Your task to perform on an android device: Check the news Image 0: 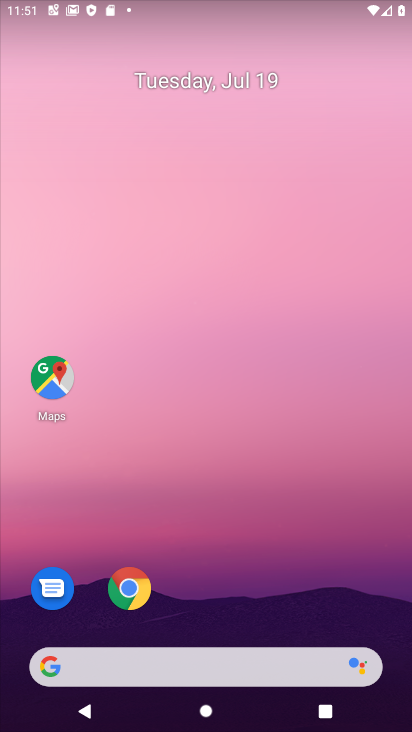
Step 0: drag from (1, 249) to (405, 296)
Your task to perform on an android device: Check the news Image 1: 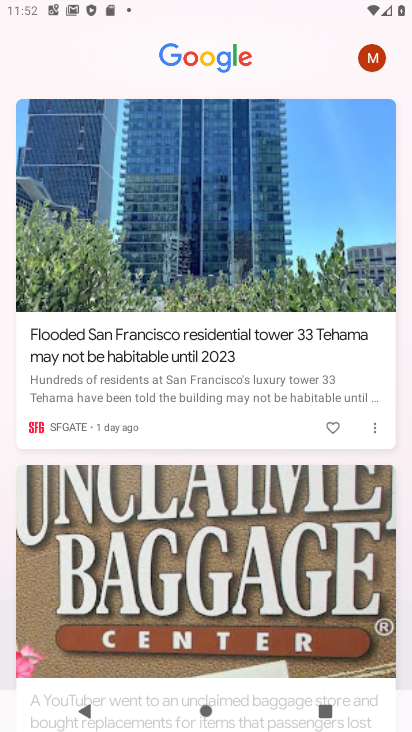
Step 1: task complete